Your task to perform on an android device: Open Youtube and go to the subscriptions tab Image 0: 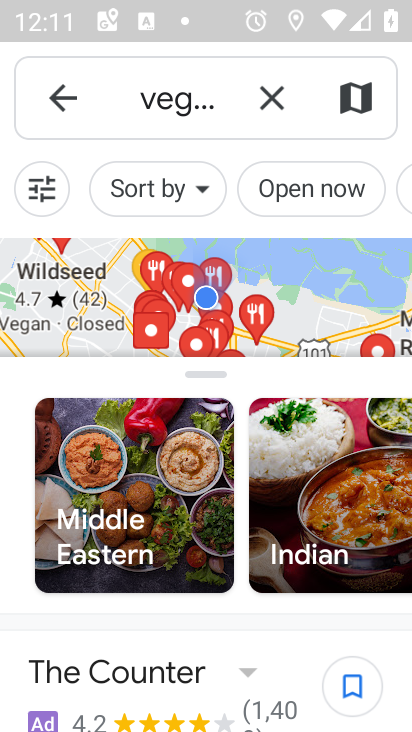
Step 0: press home button
Your task to perform on an android device: Open Youtube and go to the subscriptions tab Image 1: 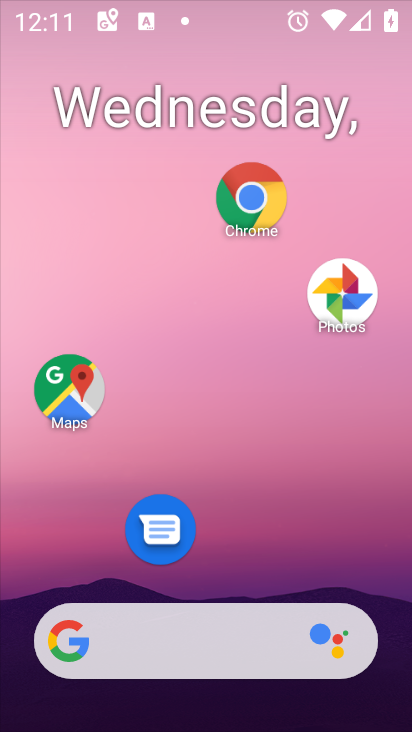
Step 1: drag from (164, 596) to (144, 195)
Your task to perform on an android device: Open Youtube and go to the subscriptions tab Image 2: 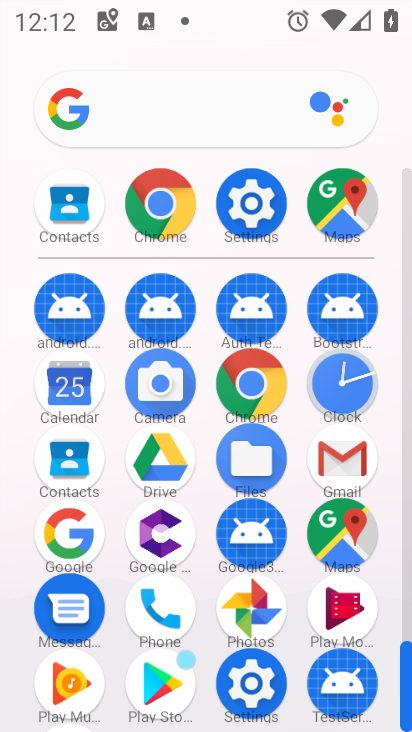
Step 2: drag from (207, 566) to (210, 333)
Your task to perform on an android device: Open Youtube and go to the subscriptions tab Image 3: 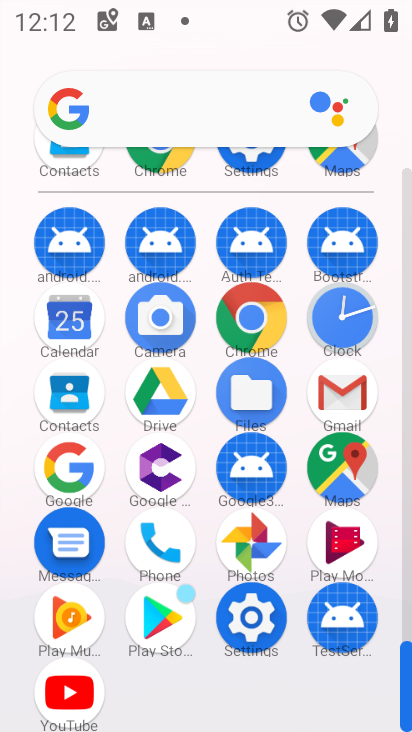
Step 3: click (79, 694)
Your task to perform on an android device: Open Youtube and go to the subscriptions tab Image 4: 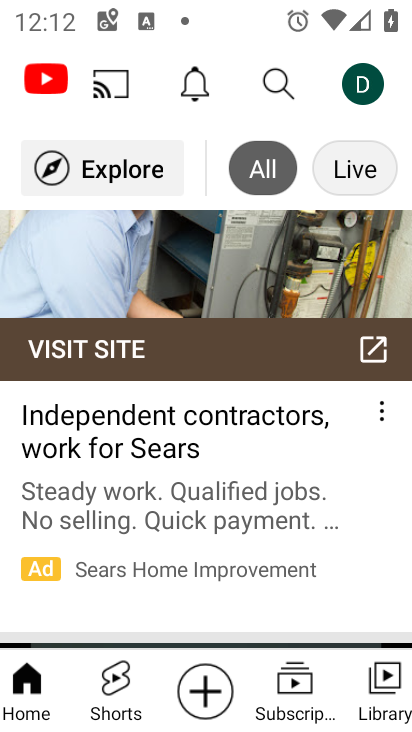
Step 4: click (295, 688)
Your task to perform on an android device: Open Youtube and go to the subscriptions tab Image 5: 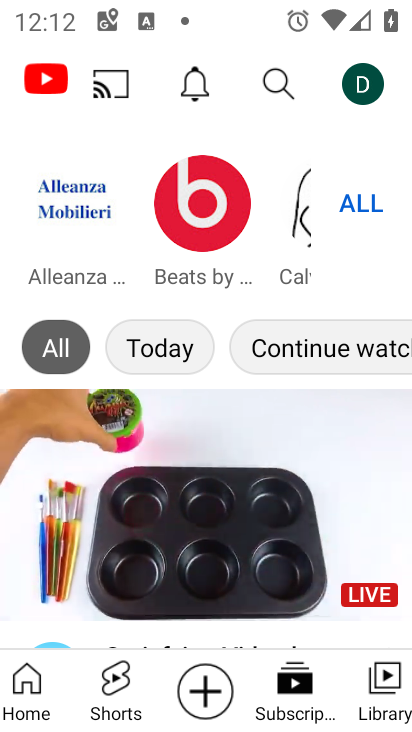
Step 5: task complete